Your task to perform on an android device: Open notification settings Image 0: 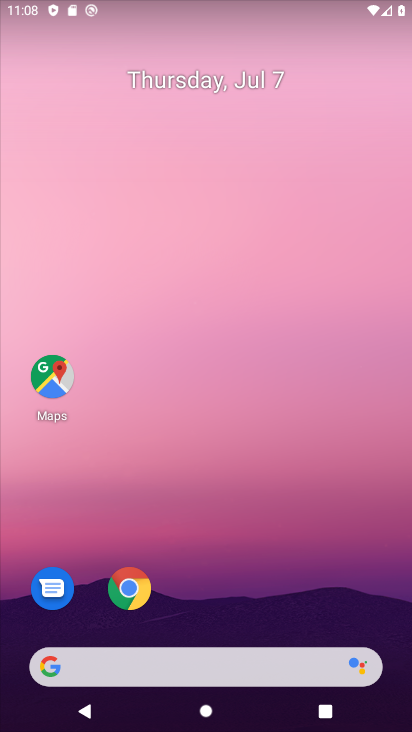
Step 0: drag from (287, 569) to (205, 114)
Your task to perform on an android device: Open notification settings Image 1: 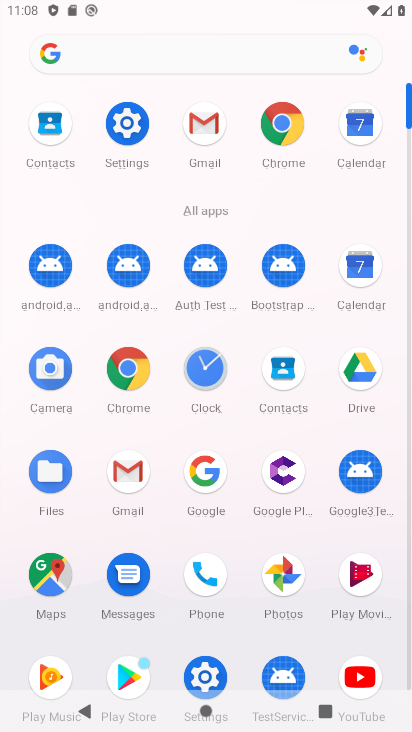
Step 1: click (132, 119)
Your task to perform on an android device: Open notification settings Image 2: 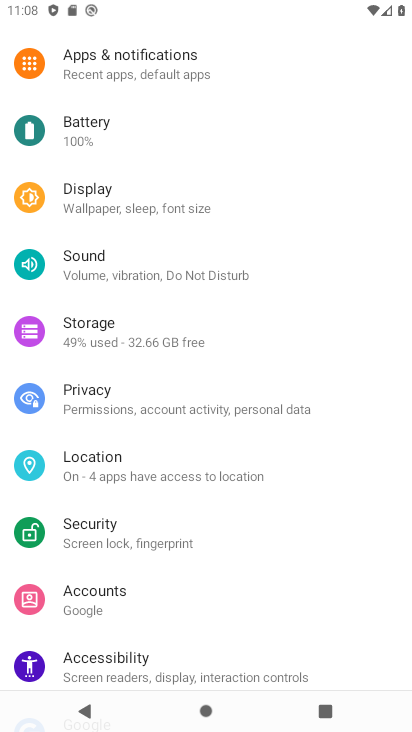
Step 2: click (103, 53)
Your task to perform on an android device: Open notification settings Image 3: 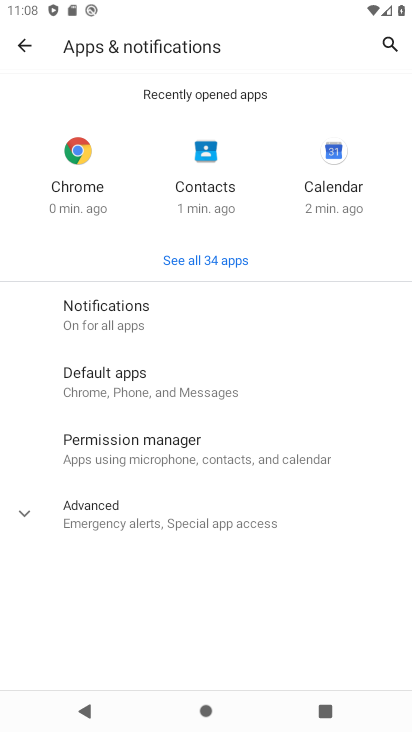
Step 3: task complete